Your task to perform on an android device: change the clock display to show seconds Image 0: 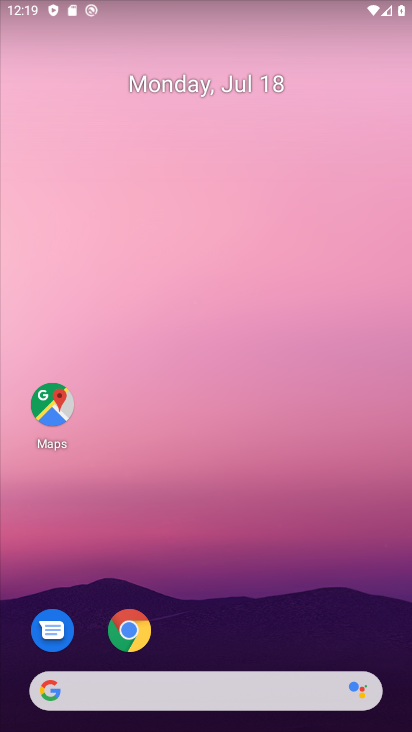
Step 0: drag from (240, 621) to (170, 130)
Your task to perform on an android device: change the clock display to show seconds Image 1: 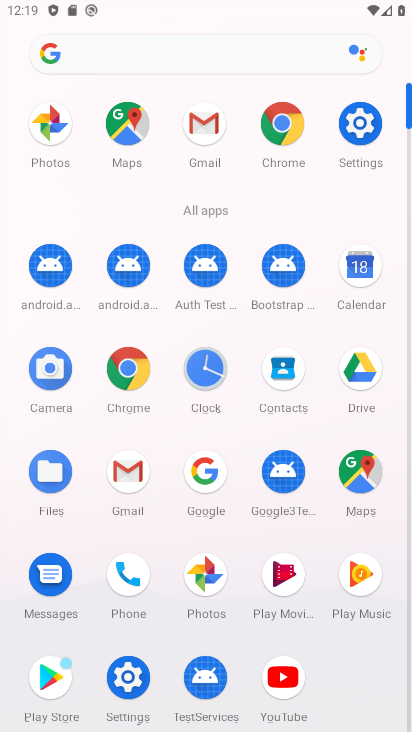
Step 1: drag from (264, 696) to (219, 171)
Your task to perform on an android device: change the clock display to show seconds Image 2: 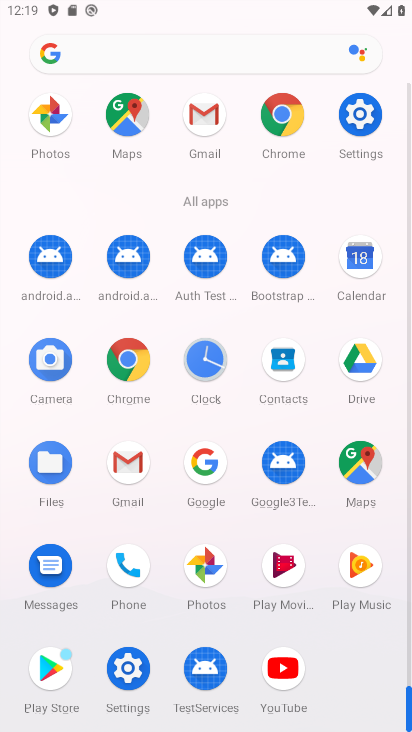
Step 2: click (218, 361)
Your task to perform on an android device: change the clock display to show seconds Image 3: 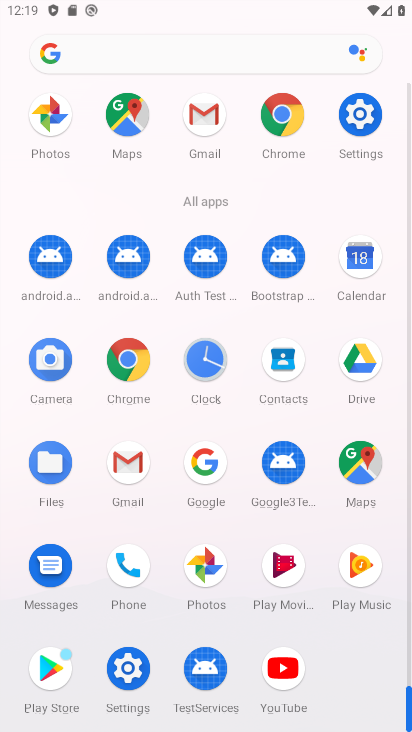
Step 3: click (219, 357)
Your task to perform on an android device: change the clock display to show seconds Image 4: 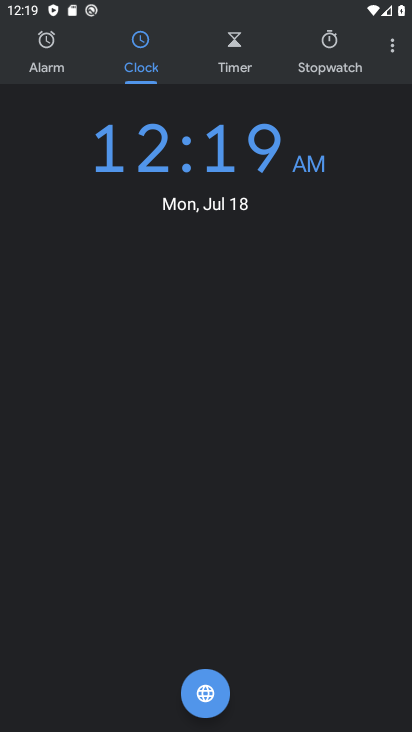
Step 4: click (209, 357)
Your task to perform on an android device: change the clock display to show seconds Image 5: 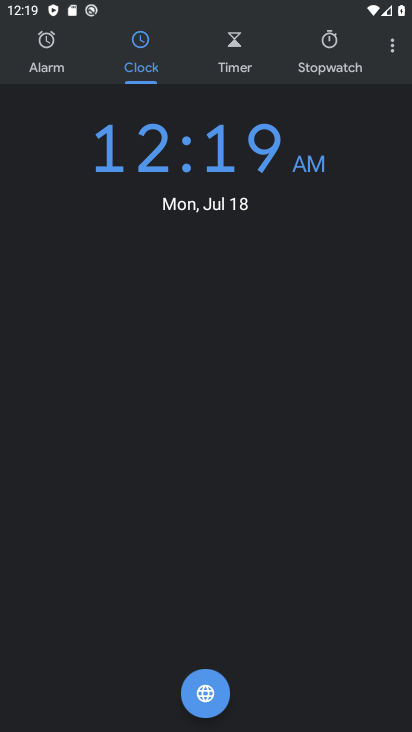
Step 5: click (398, 42)
Your task to perform on an android device: change the clock display to show seconds Image 6: 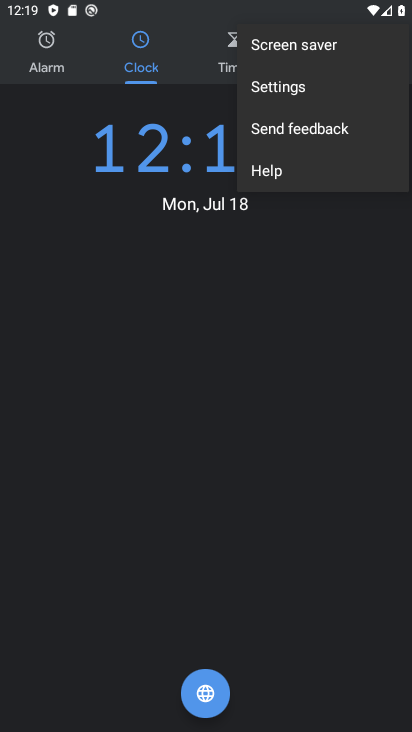
Step 6: click (392, 40)
Your task to perform on an android device: change the clock display to show seconds Image 7: 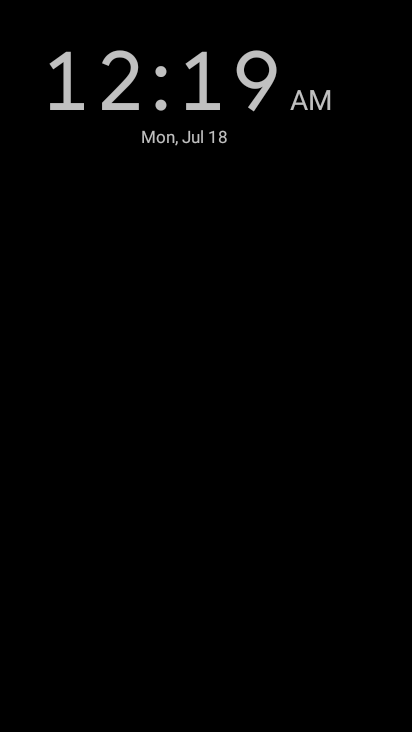
Step 7: press back button
Your task to perform on an android device: change the clock display to show seconds Image 8: 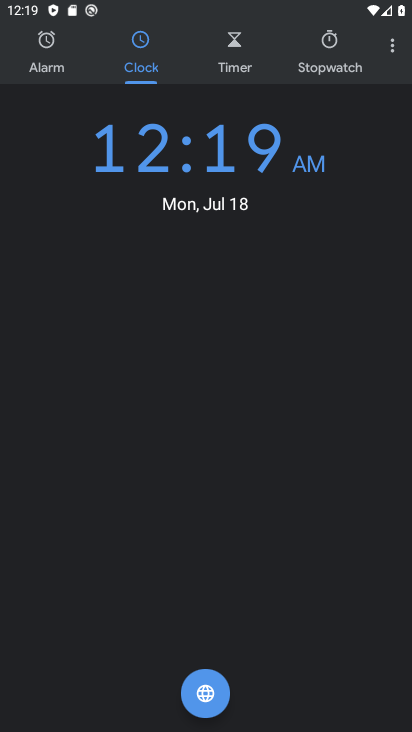
Step 8: click (396, 50)
Your task to perform on an android device: change the clock display to show seconds Image 9: 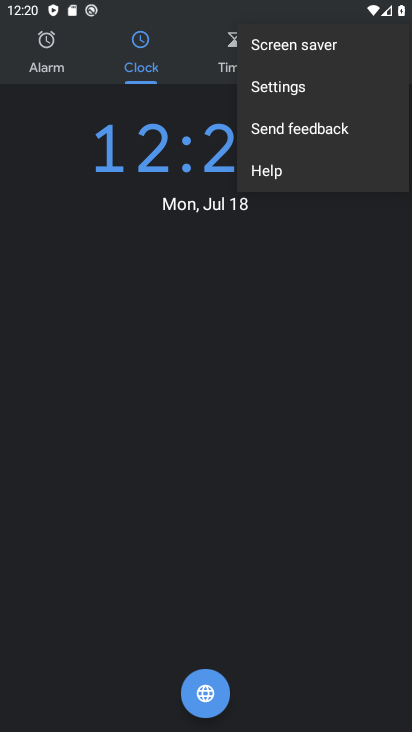
Step 9: click (389, 54)
Your task to perform on an android device: change the clock display to show seconds Image 10: 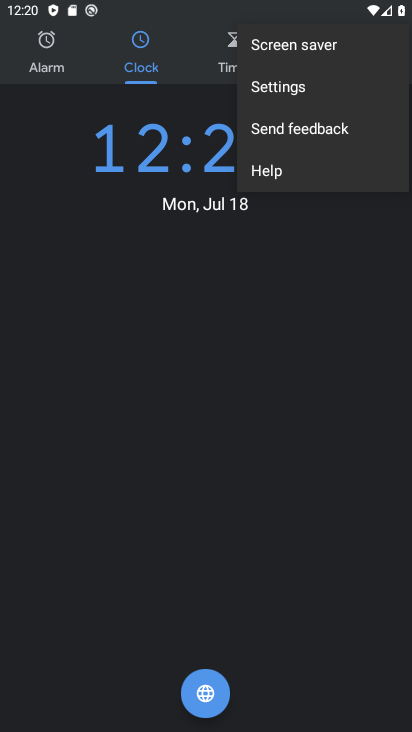
Step 10: drag from (392, 55) to (273, 87)
Your task to perform on an android device: change the clock display to show seconds Image 11: 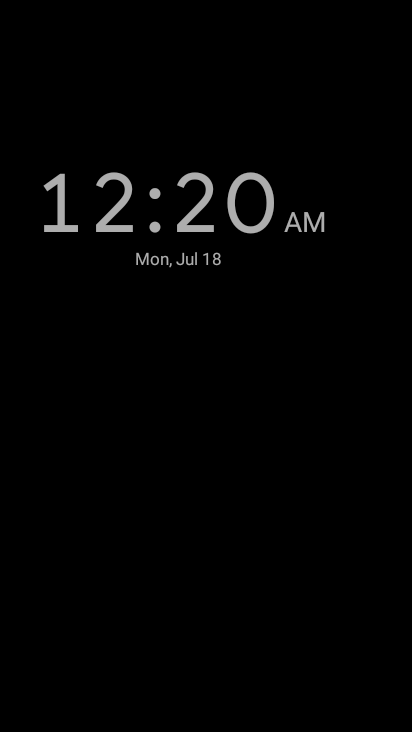
Step 11: click (9, 103)
Your task to perform on an android device: change the clock display to show seconds Image 12: 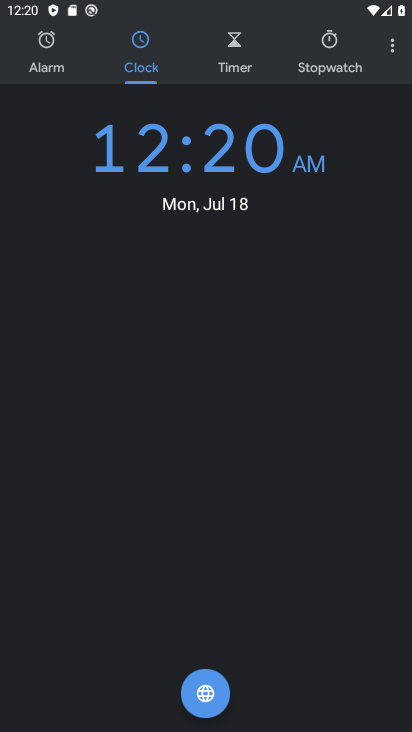
Step 12: click (390, 41)
Your task to perform on an android device: change the clock display to show seconds Image 13: 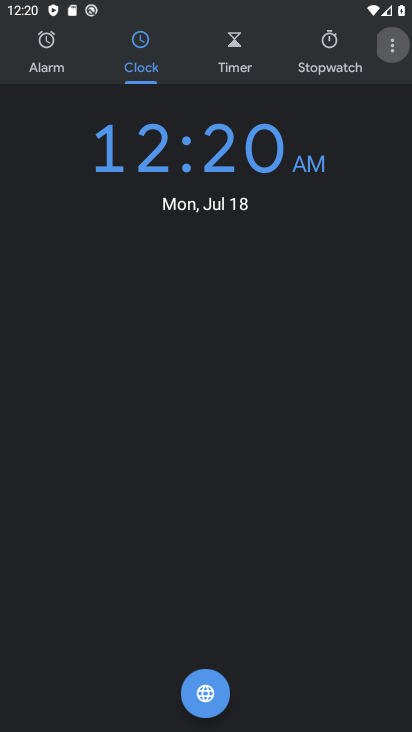
Step 13: click (392, 50)
Your task to perform on an android device: change the clock display to show seconds Image 14: 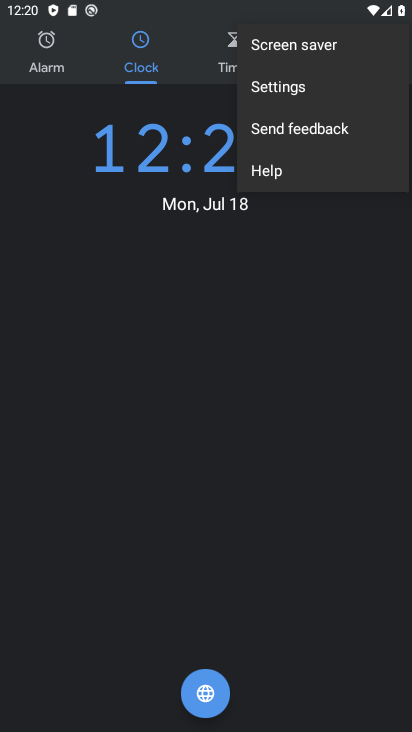
Step 14: click (295, 94)
Your task to perform on an android device: change the clock display to show seconds Image 15: 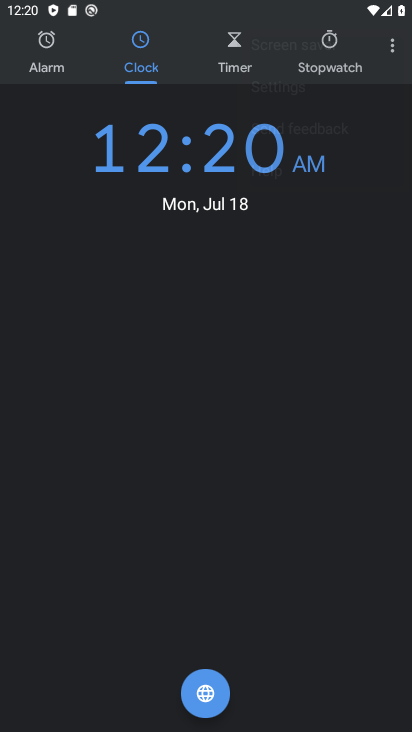
Step 15: click (284, 85)
Your task to perform on an android device: change the clock display to show seconds Image 16: 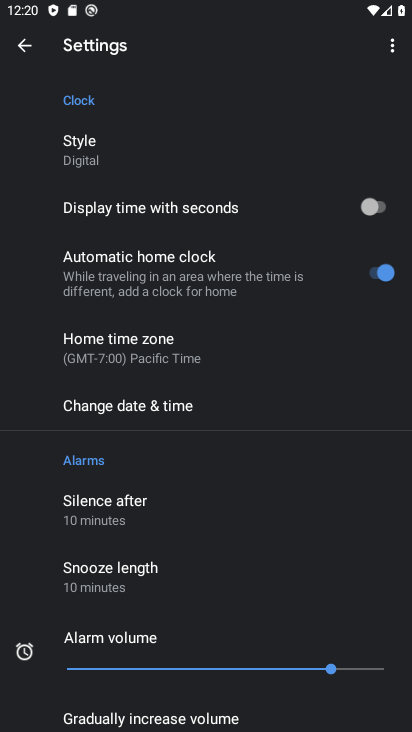
Step 16: click (377, 205)
Your task to perform on an android device: change the clock display to show seconds Image 17: 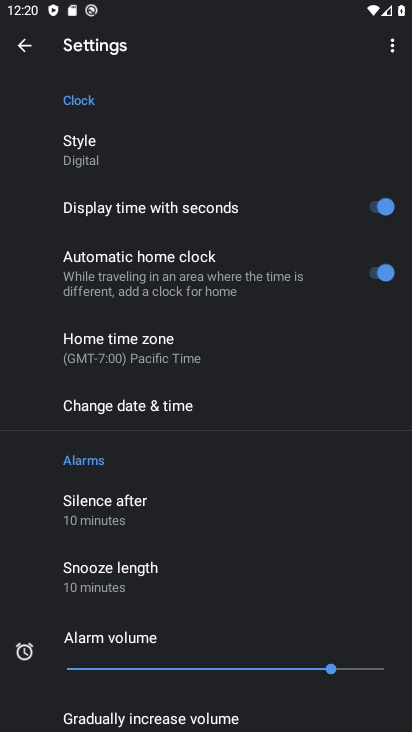
Step 17: task complete